Your task to perform on an android device: turn off javascript in the chrome app Image 0: 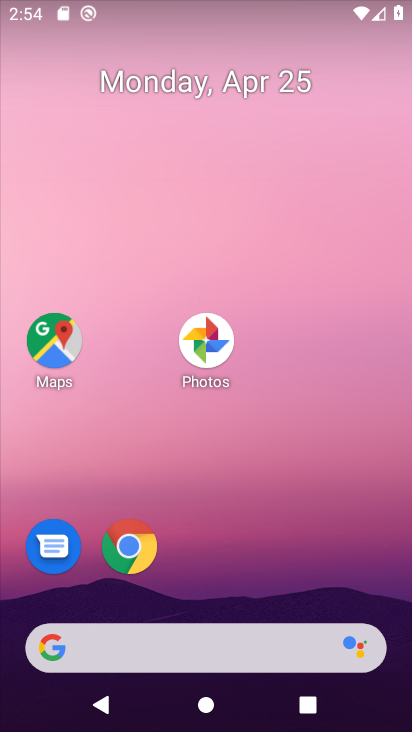
Step 0: drag from (299, 399) to (307, 249)
Your task to perform on an android device: turn off javascript in the chrome app Image 1: 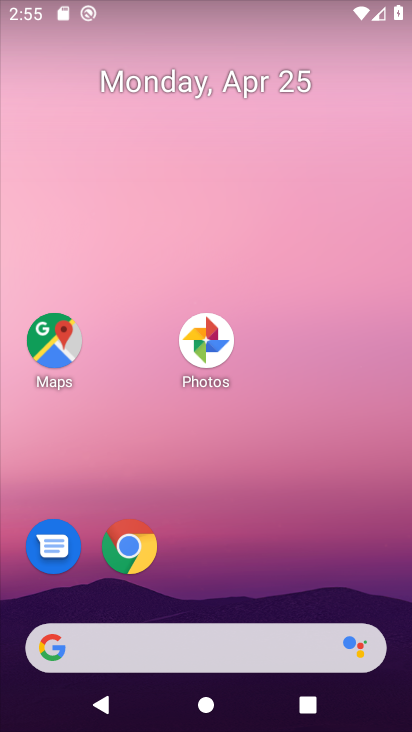
Step 1: drag from (304, 568) to (316, 263)
Your task to perform on an android device: turn off javascript in the chrome app Image 2: 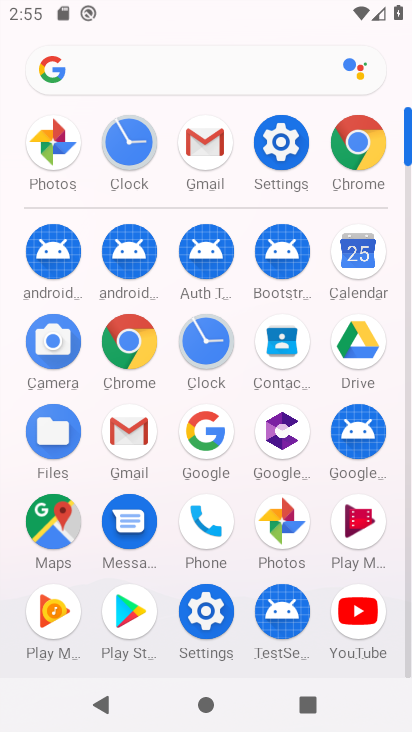
Step 2: click (357, 137)
Your task to perform on an android device: turn off javascript in the chrome app Image 3: 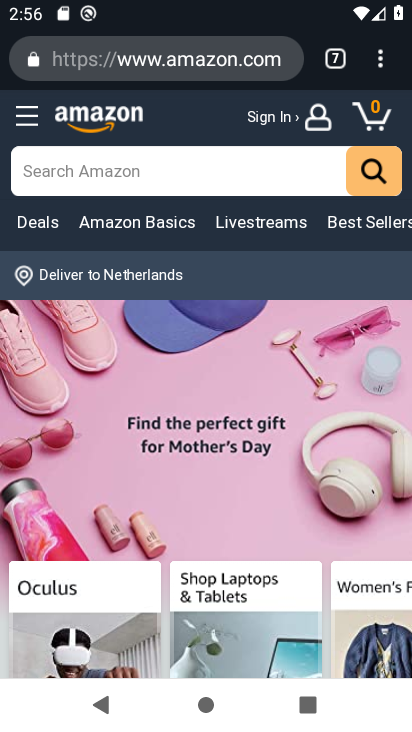
Step 3: click (370, 48)
Your task to perform on an android device: turn off javascript in the chrome app Image 4: 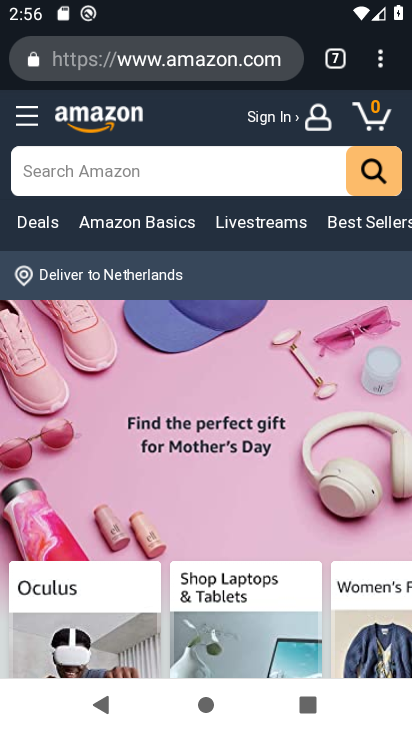
Step 4: click (361, 60)
Your task to perform on an android device: turn off javascript in the chrome app Image 5: 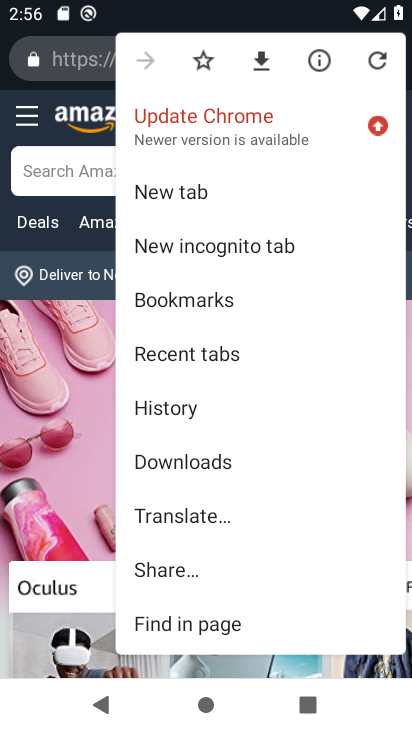
Step 5: drag from (226, 523) to (220, 281)
Your task to perform on an android device: turn off javascript in the chrome app Image 6: 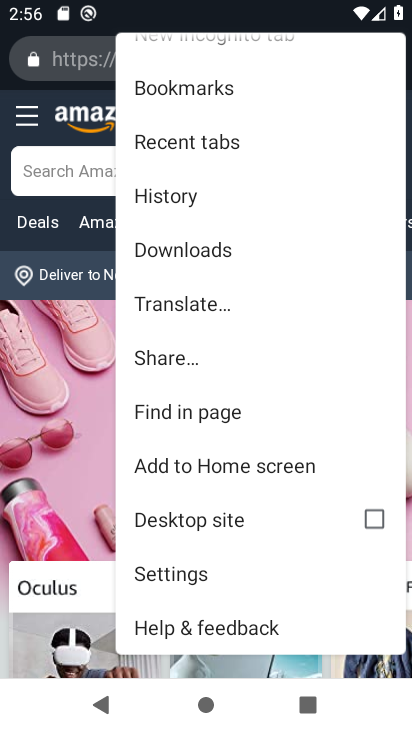
Step 6: click (185, 578)
Your task to perform on an android device: turn off javascript in the chrome app Image 7: 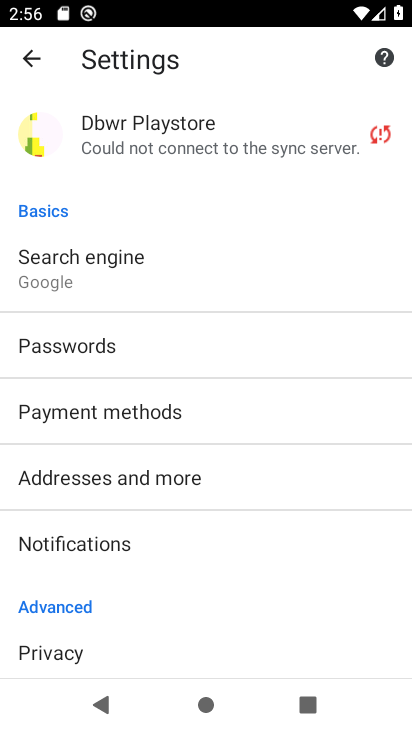
Step 7: drag from (277, 599) to (321, 105)
Your task to perform on an android device: turn off javascript in the chrome app Image 8: 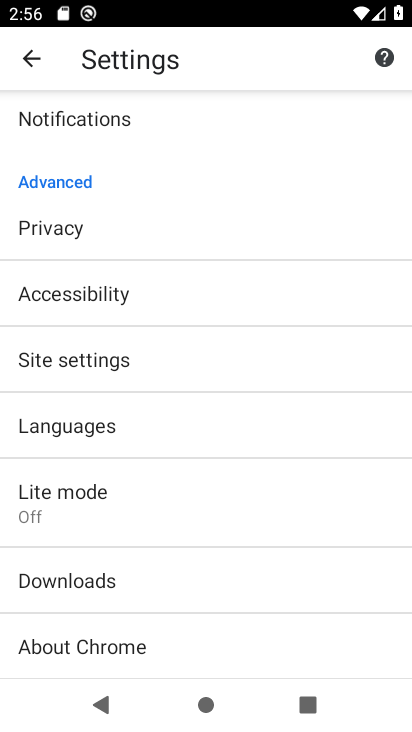
Step 8: click (102, 359)
Your task to perform on an android device: turn off javascript in the chrome app Image 9: 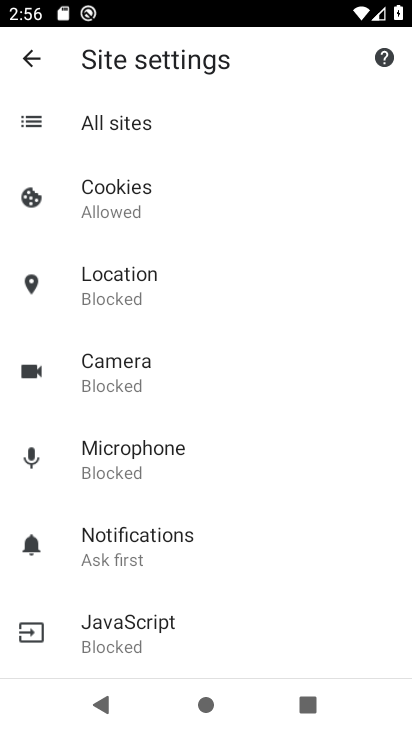
Step 9: click (162, 625)
Your task to perform on an android device: turn off javascript in the chrome app Image 10: 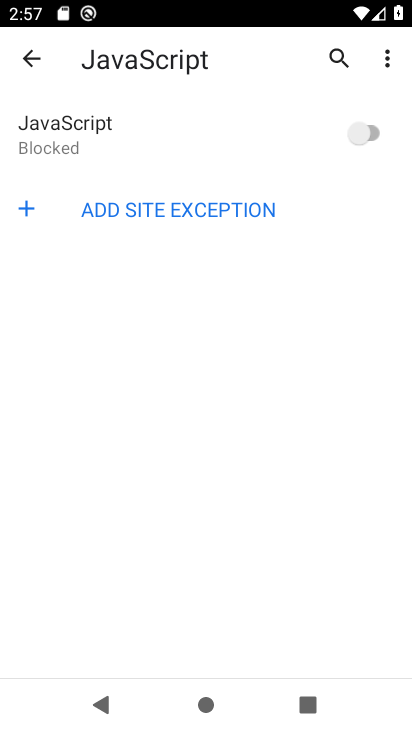
Step 10: task complete